Your task to perform on an android device: Open battery settings Image 0: 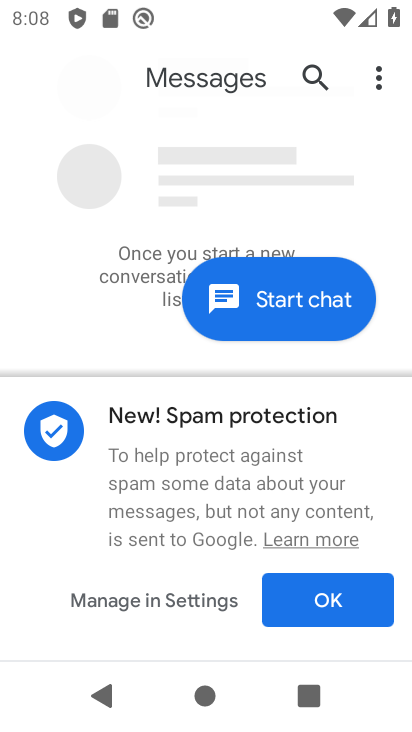
Step 0: press back button
Your task to perform on an android device: Open battery settings Image 1: 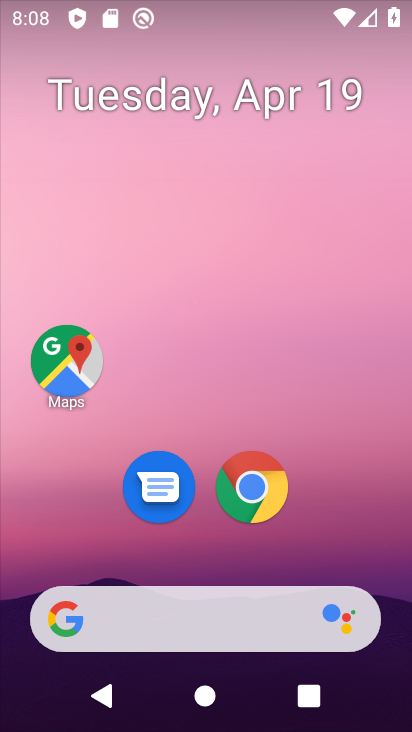
Step 1: drag from (192, 481) to (281, 35)
Your task to perform on an android device: Open battery settings Image 2: 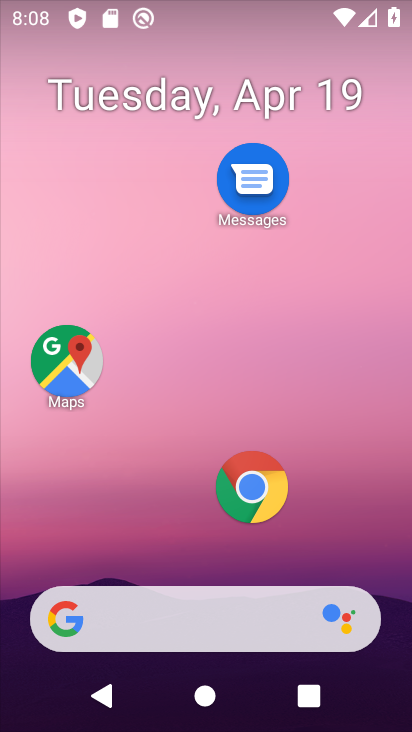
Step 2: drag from (163, 529) to (283, 4)
Your task to perform on an android device: Open battery settings Image 3: 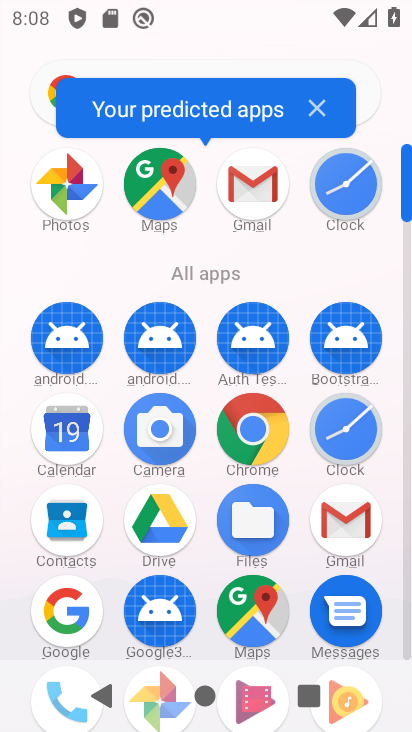
Step 3: drag from (201, 621) to (288, 294)
Your task to perform on an android device: Open battery settings Image 4: 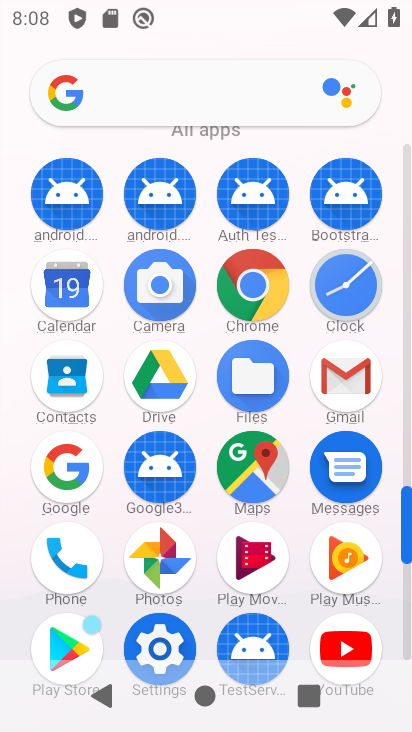
Step 4: click (164, 642)
Your task to perform on an android device: Open battery settings Image 5: 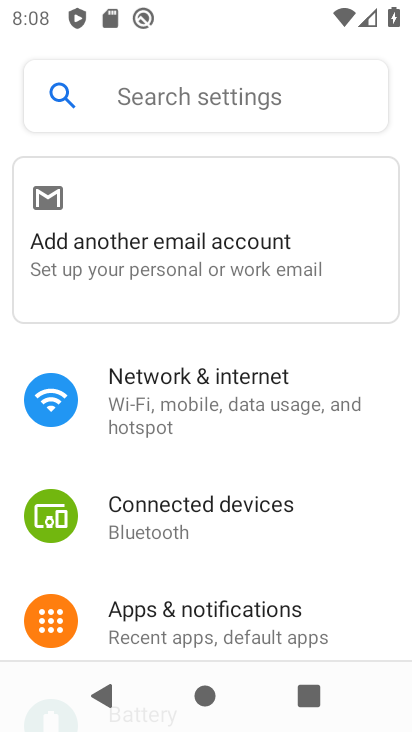
Step 5: drag from (205, 613) to (338, 189)
Your task to perform on an android device: Open battery settings Image 6: 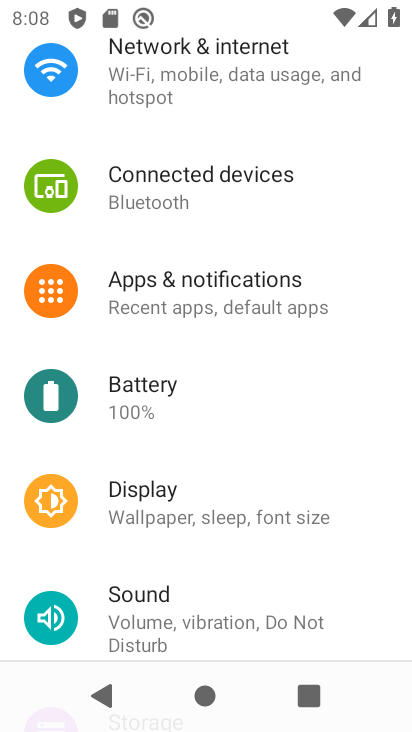
Step 6: click (193, 381)
Your task to perform on an android device: Open battery settings Image 7: 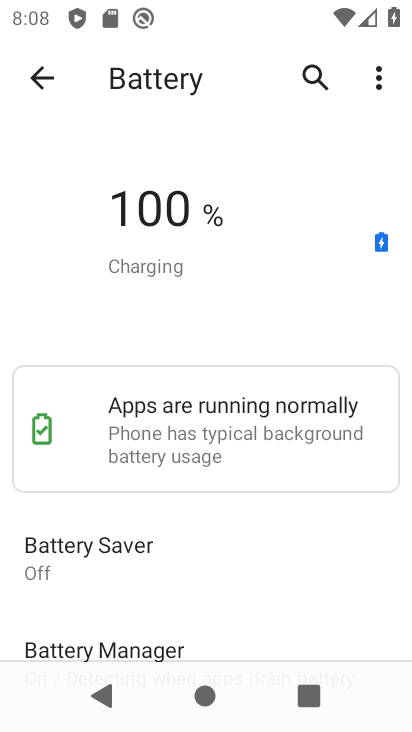
Step 7: task complete